Your task to perform on an android device: all mails in gmail Image 0: 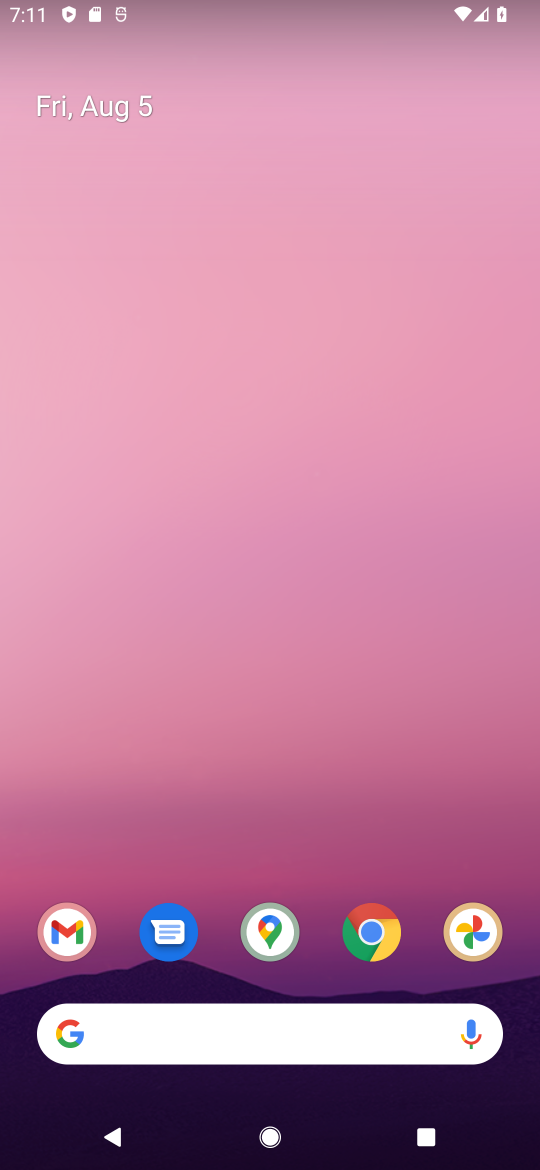
Step 0: drag from (297, 613) to (265, 26)
Your task to perform on an android device: all mails in gmail Image 1: 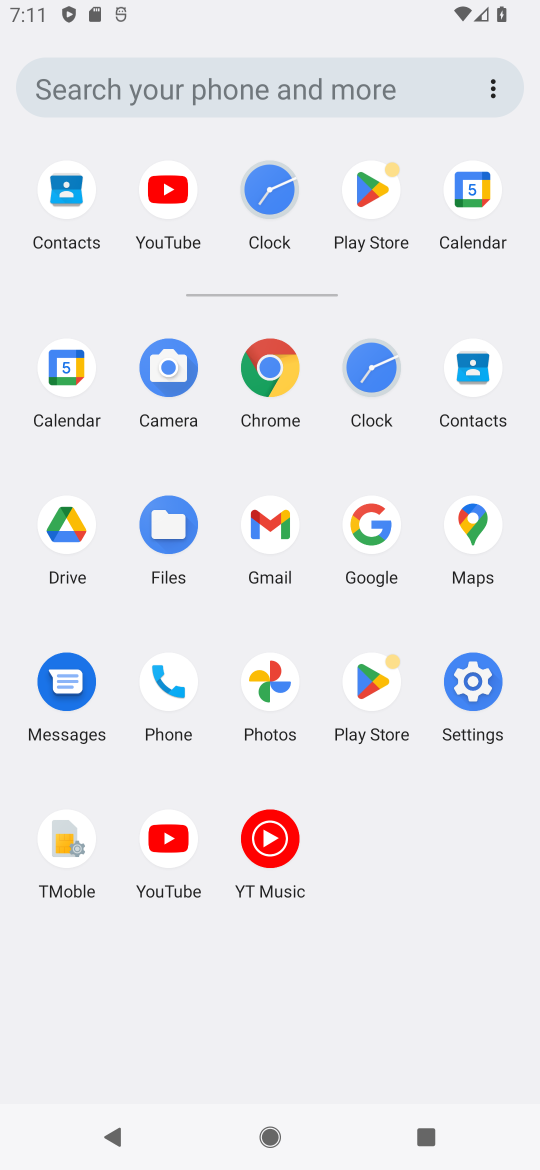
Step 1: click (269, 517)
Your task to perform on an android device: all mails in gmail Image 2: 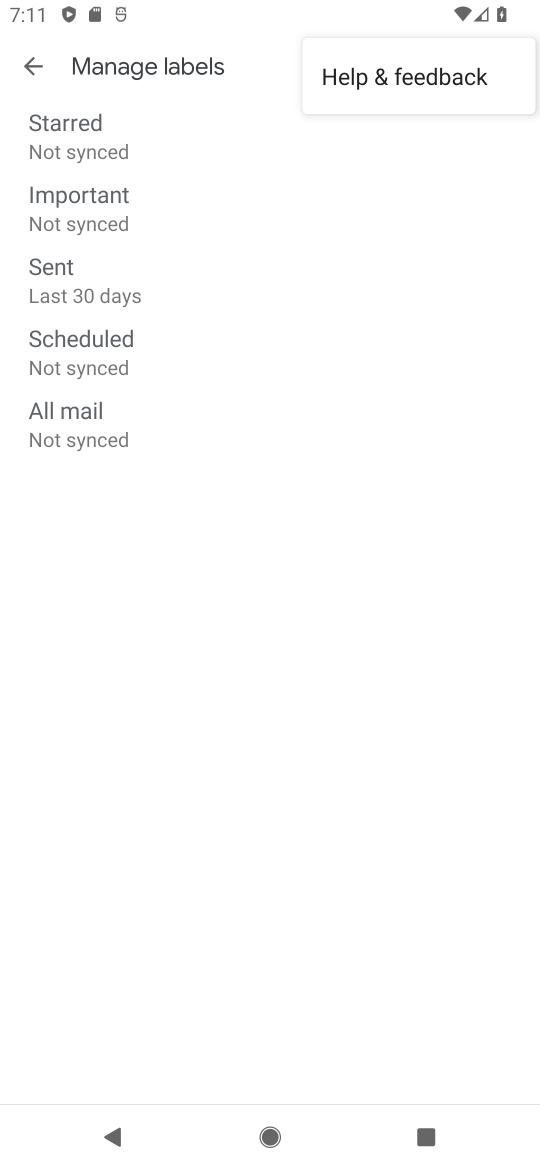
Step 2: click (30, 62)
Your task to perform on an android device: all mails in gmail Image 3: 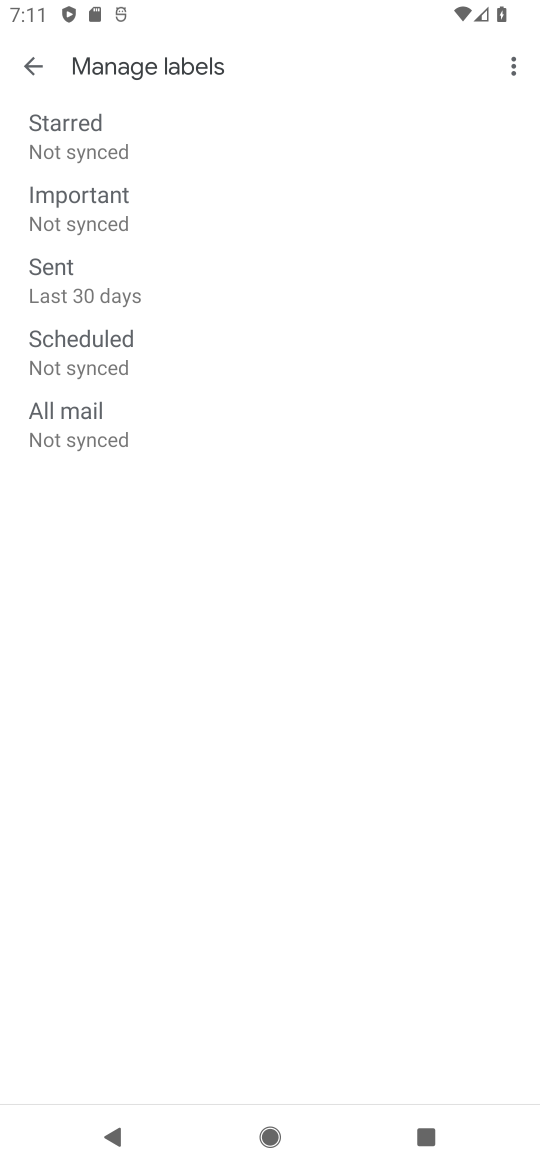
Step 3: click (36, 56)
Your task to perform on an android device: all mails in gmail Image 4: 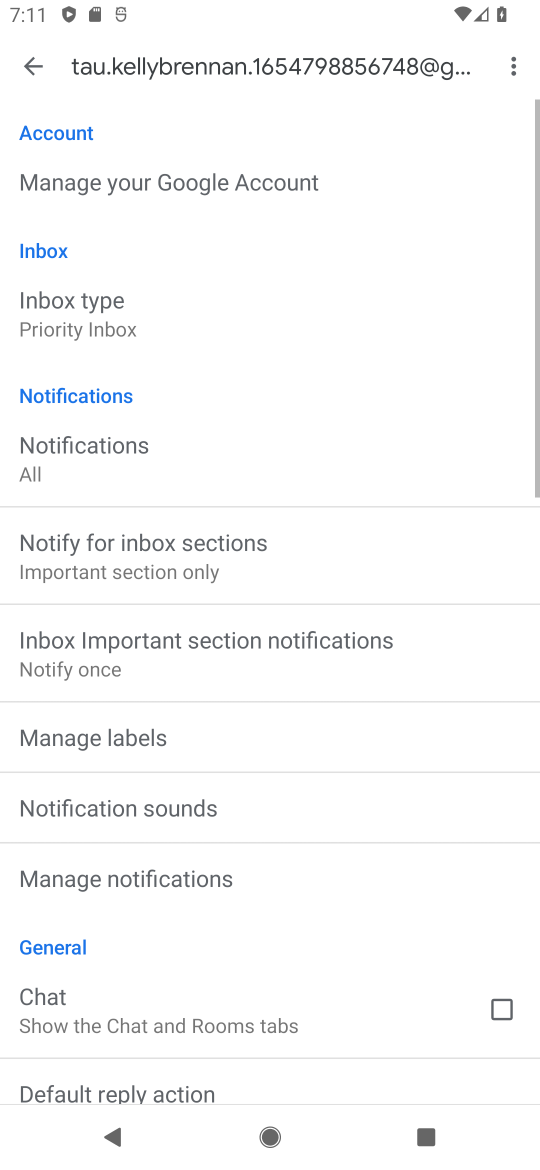
Step 4: click (36, 56)
Your task to perform on an android device: all mails in gmail Image 5: 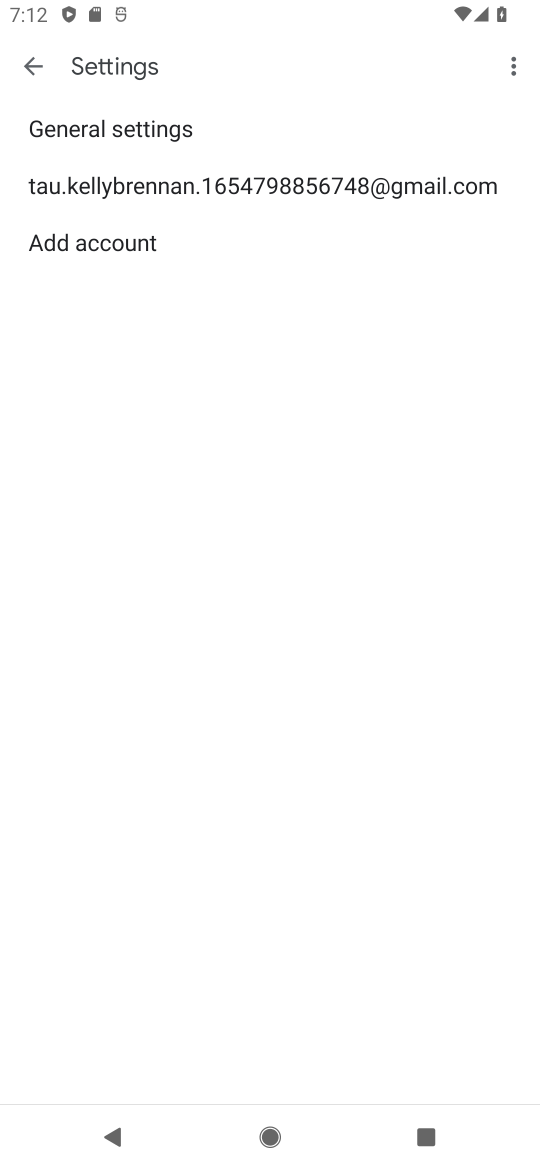
Step 5: click (58, 76)
Your task to perform on an android device: all mails in gmail Image 6: 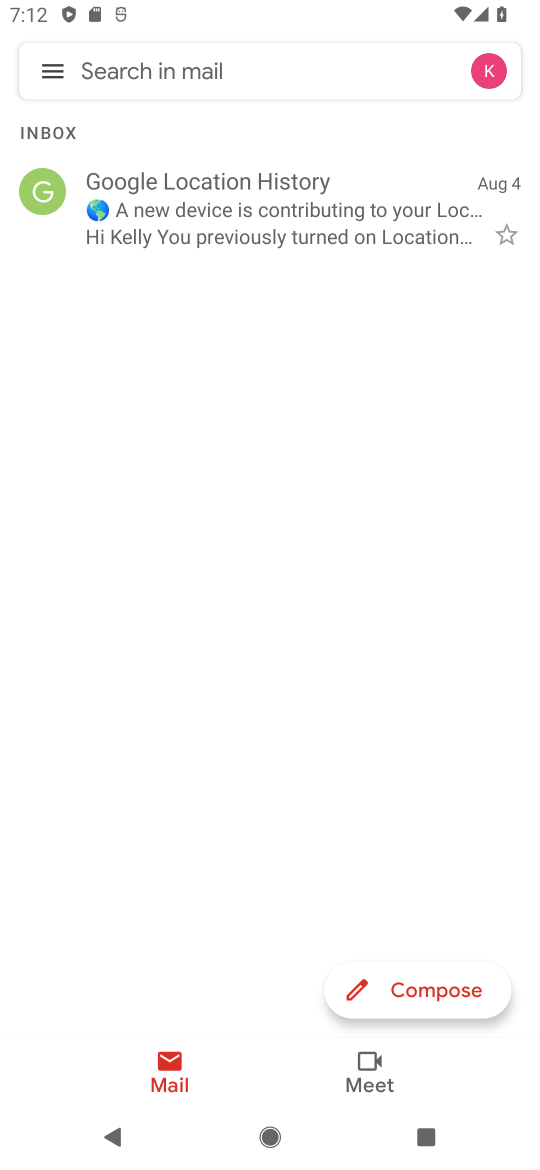
Step 6: click (38, 68)
Your task to perform on an android device: all mails in gmail Image 7: 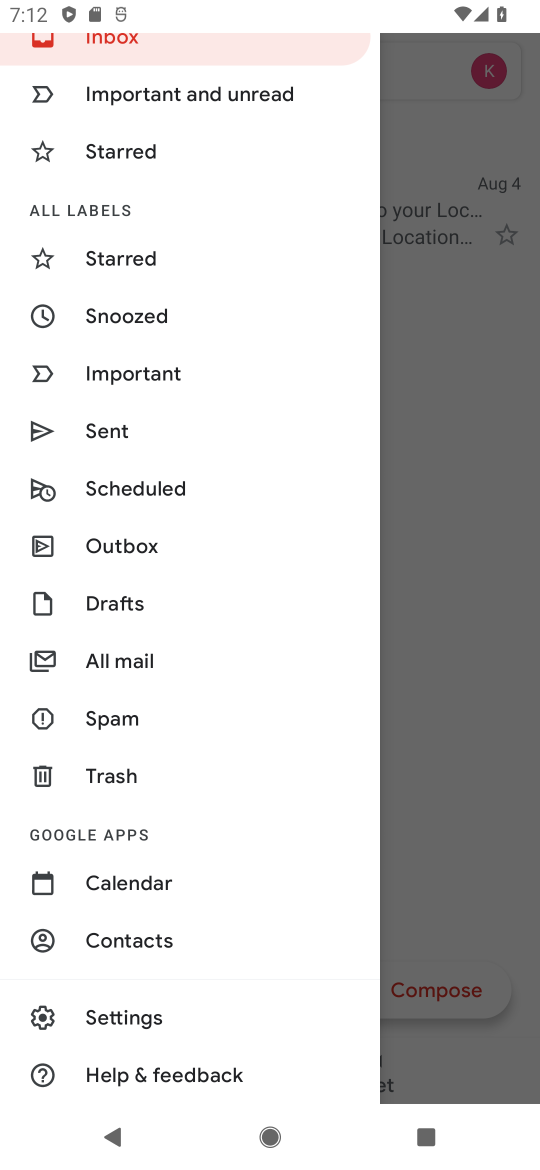
Step 7: click (101, 671)
Your task to perform on an android device: all mails in gmail Image 8: 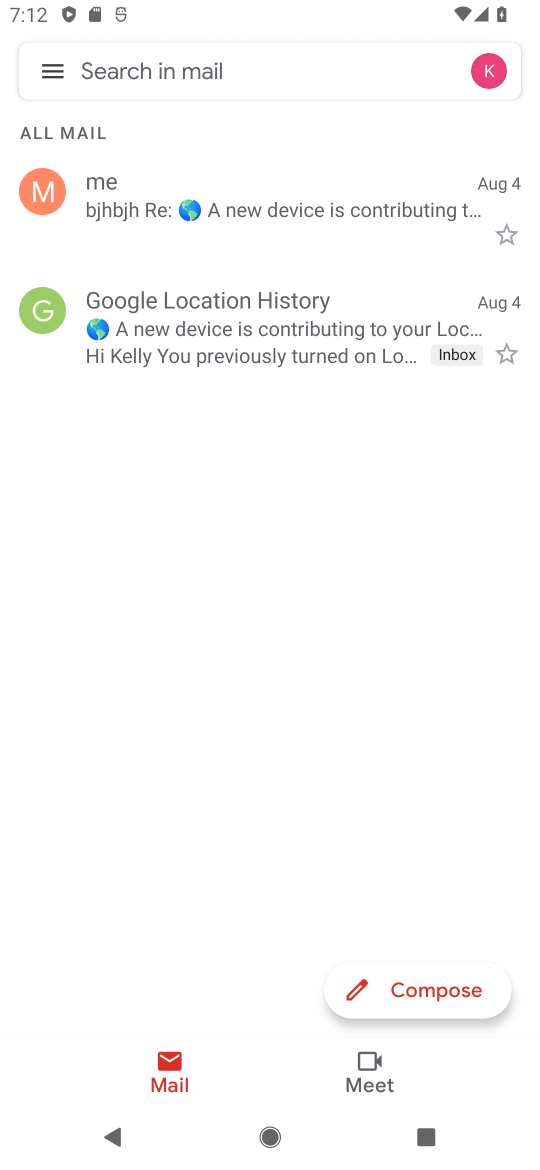
Step 8: task complete